Your task to perform on an android device: Open calendar and show me the first week of next month Image 0: 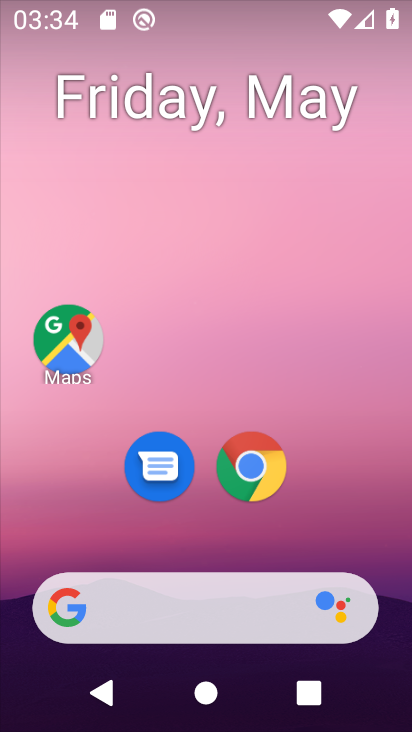
Step 0: drag from (399, 642) to (368, 229)
Your task to perform on an android device: Open calendar and show me the first week of next month Image 1: 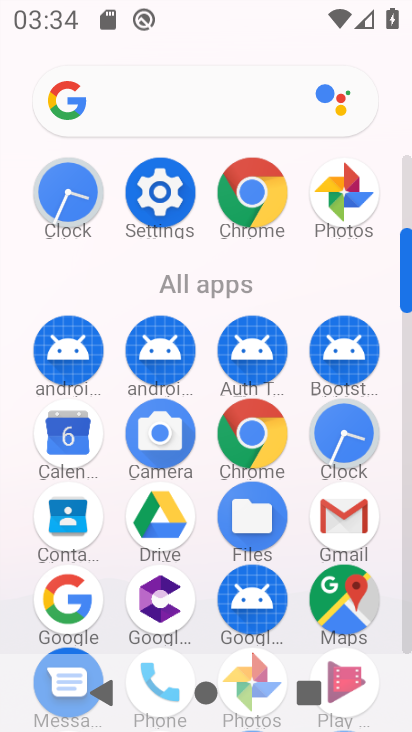
Step 1: drag from (407, 244) to (402, 87)
Your task to perform on an android device: Open calendar and show me the first week of next month Image 2: 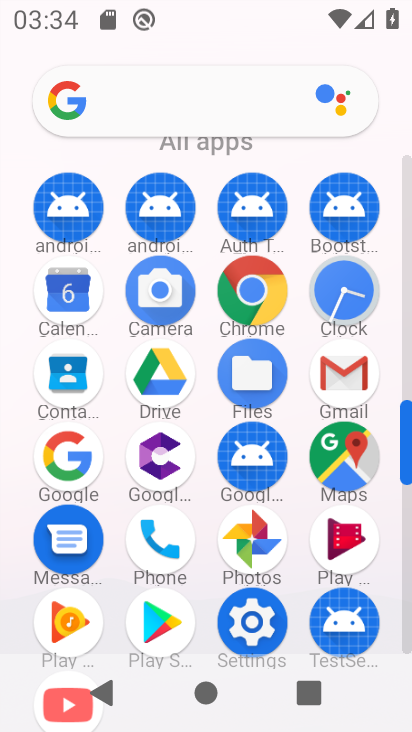
Step 2: click (63, 304)
Your task to perform on an android device: Open calendar and show me the first week of next month Image 3: 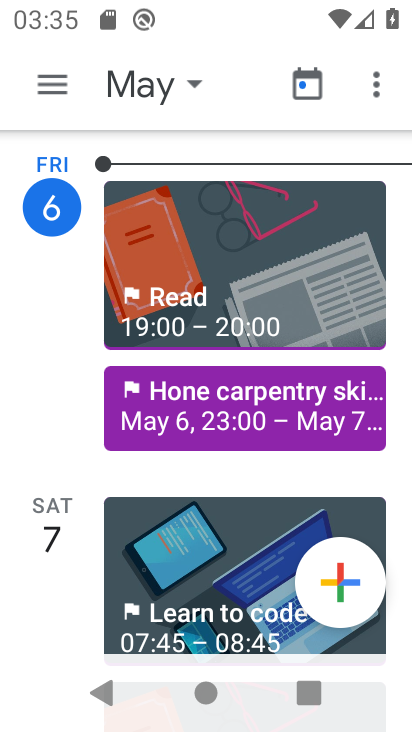
Step 3: click (189, 85)
Your task to perform on an android device: Open calendar and show me the first week of next month Image 4: 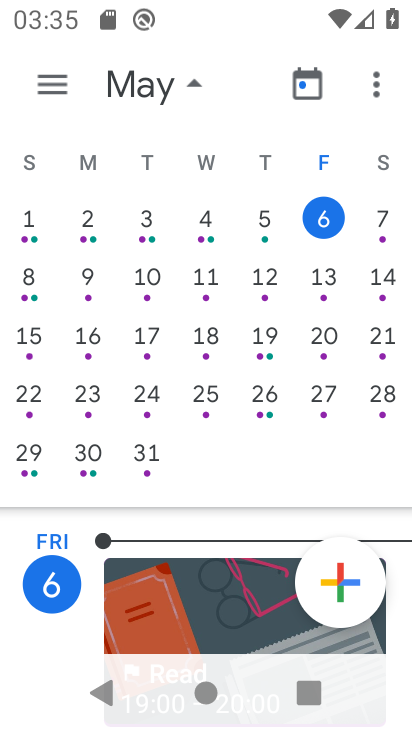
Step 4: drag from (403, 387) to (2, 337)
Your task to perform on an android device: Open calendar and show me the first week of next month Image 5: 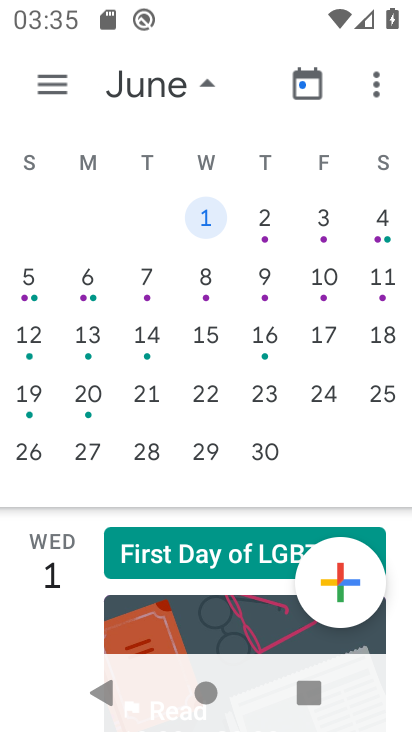
Step 5: click (317, 221)
Your task to perform on an android device: Open calendar and show me the first week of next month Image 6: 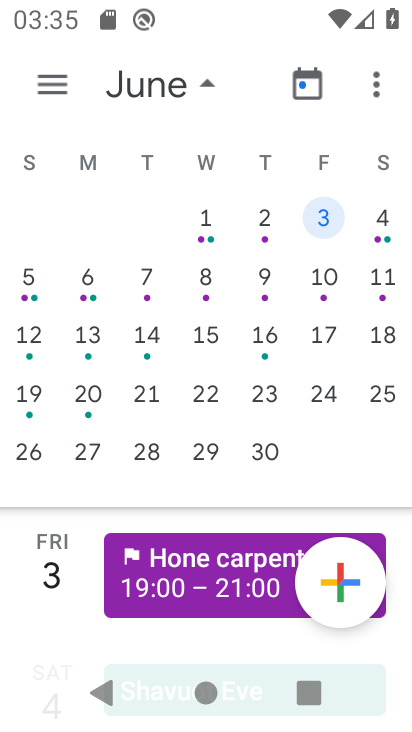
Step 6: click (317, 221)
Your task to perform on an android device: Open calendar and show me the first week of next month Image 7: 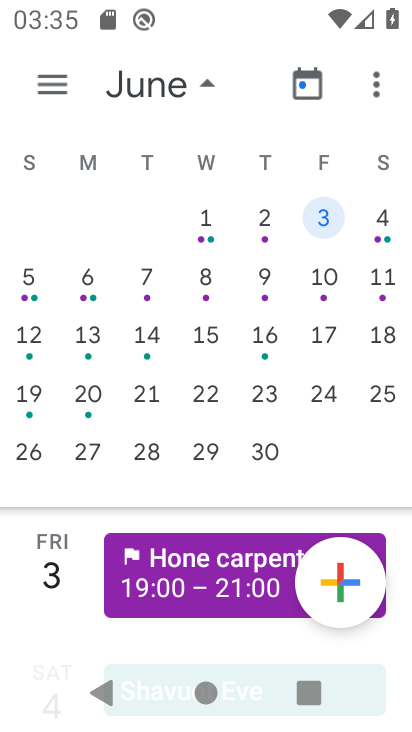
Step 7: task complete